Your task to perform on an android device: Open notification settings Image 0: 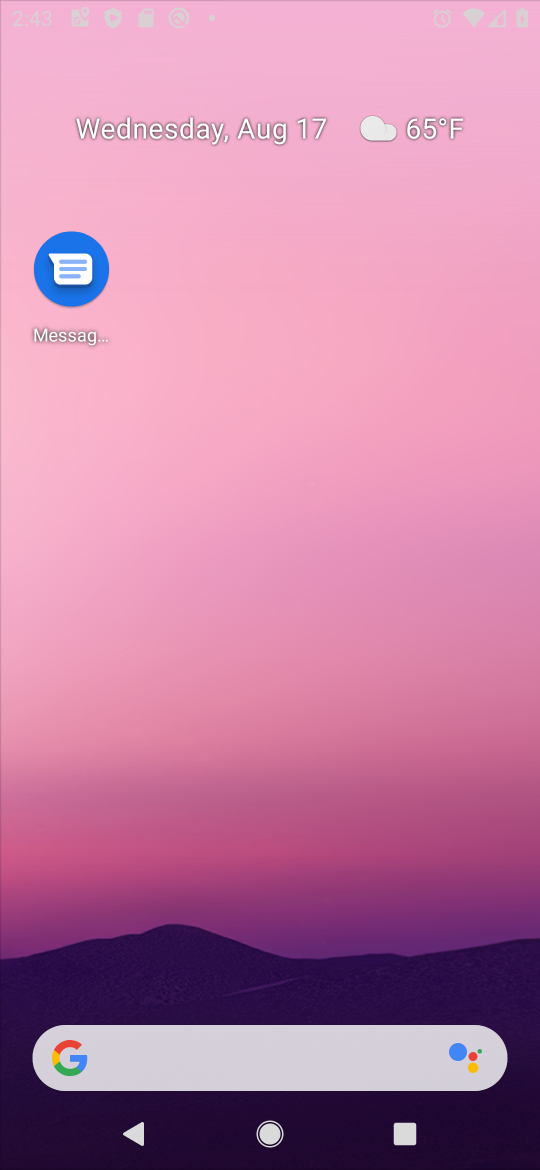
Step 0: press home button
Your task to perform on an android device: Open notification settings Image 1: 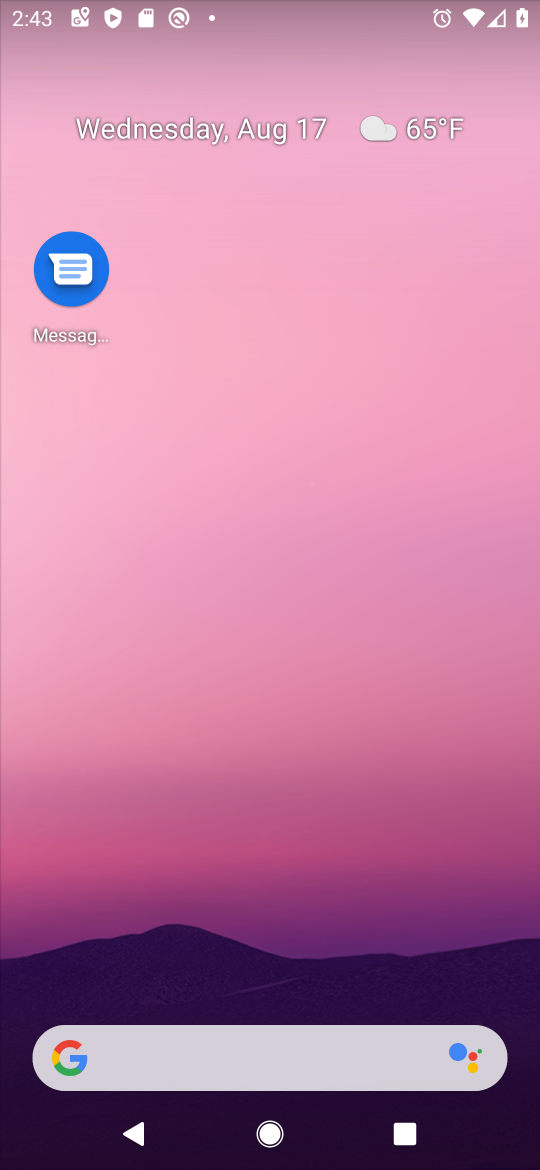
Step 1: drag from (231, 718) to (226, 56)
Your task to perform on an android device: Open notification settings Image 2: 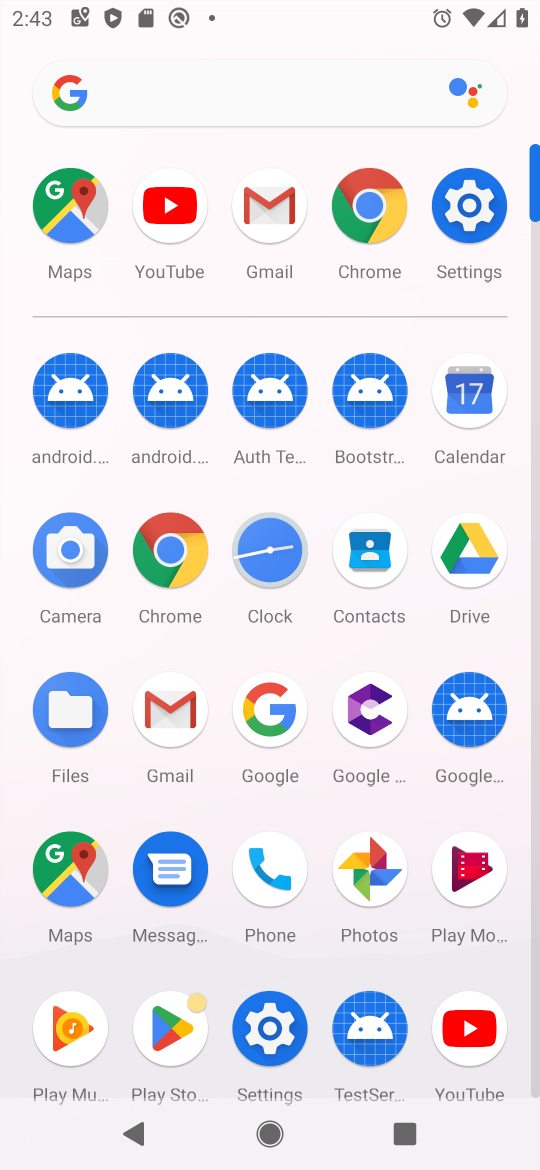
Step 2: click (467, 217)
Your task to perform on an android device: Open notification settings Image 3: 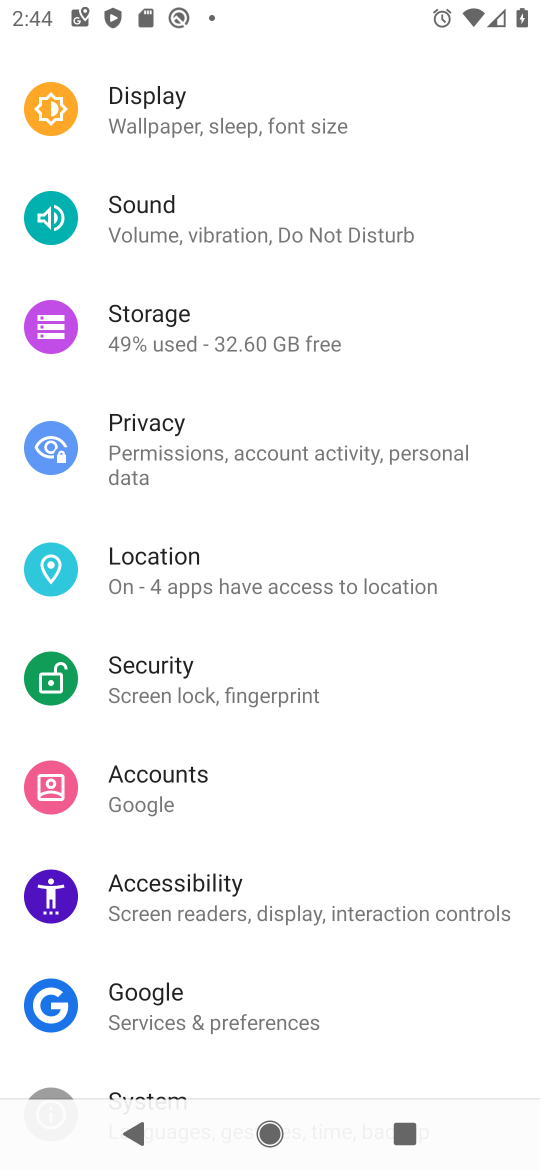
Step 3: drag from (215, 298) to (193, 760)
Your task to perform on an android device: Open notification settings Image 4: 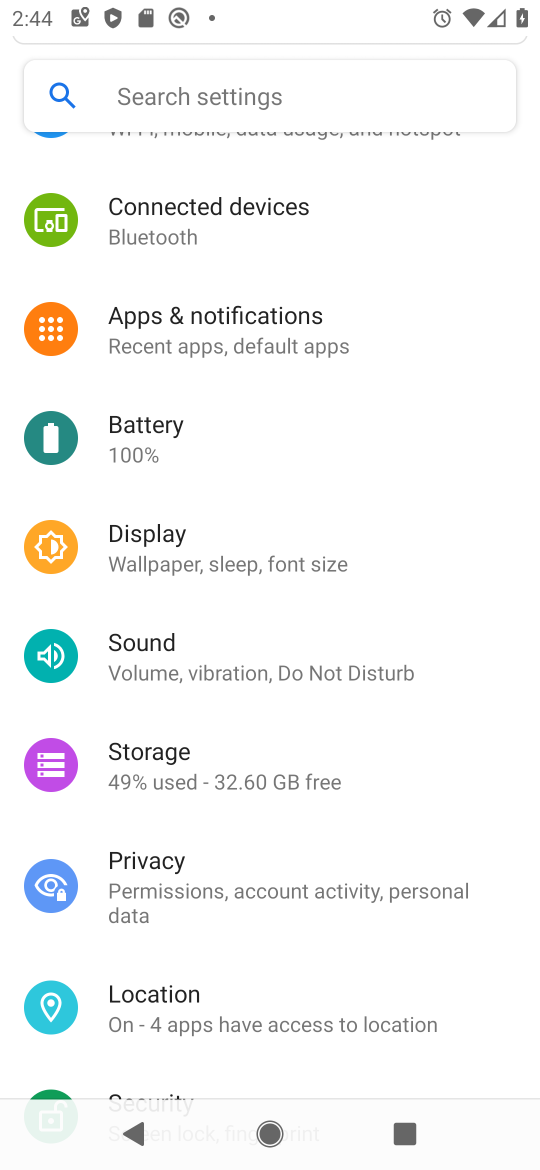
Step 4: click (191, 344)
Your task to perform on an android device: Open notification settings Image 5: 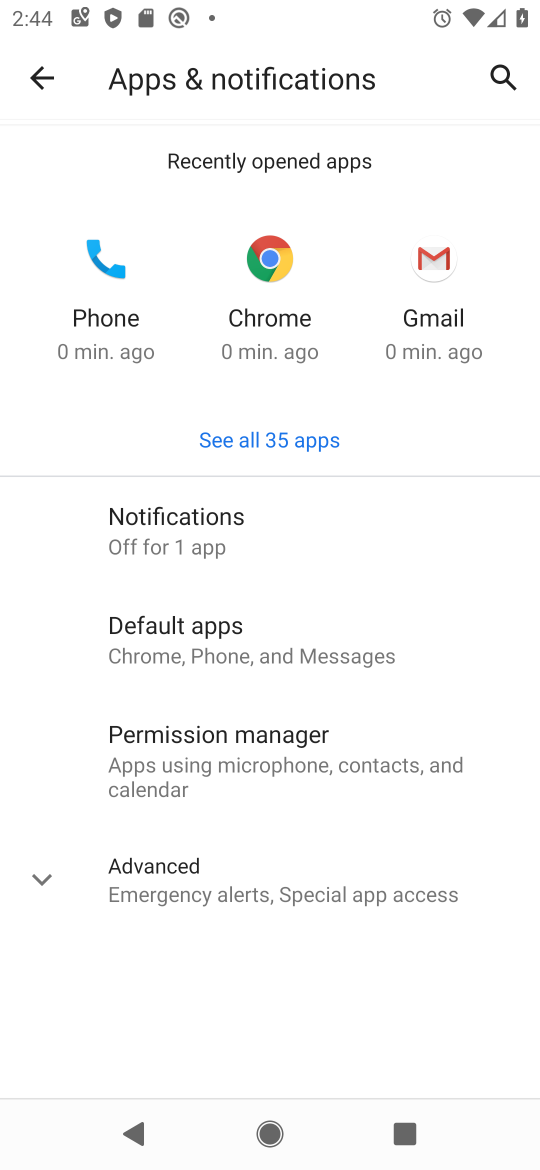
Step 5: click (188, 531)
Your task to perform on an android device: Open notification settings Image 6: 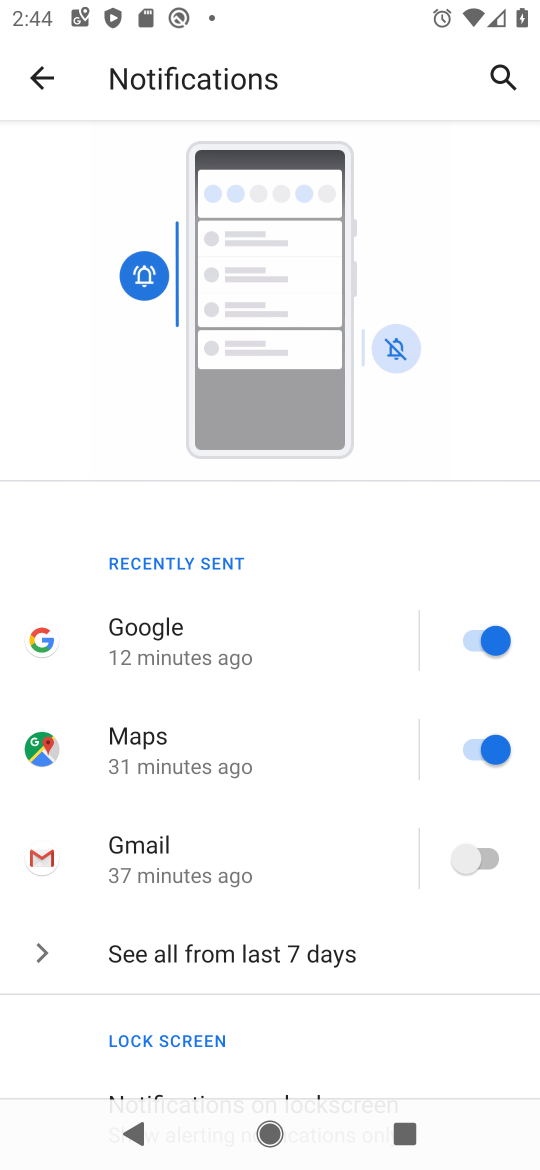
Step 6: drag from (196, 930) to (245, 124)
Your task to perform on an android device: Open notification settings Image 7: 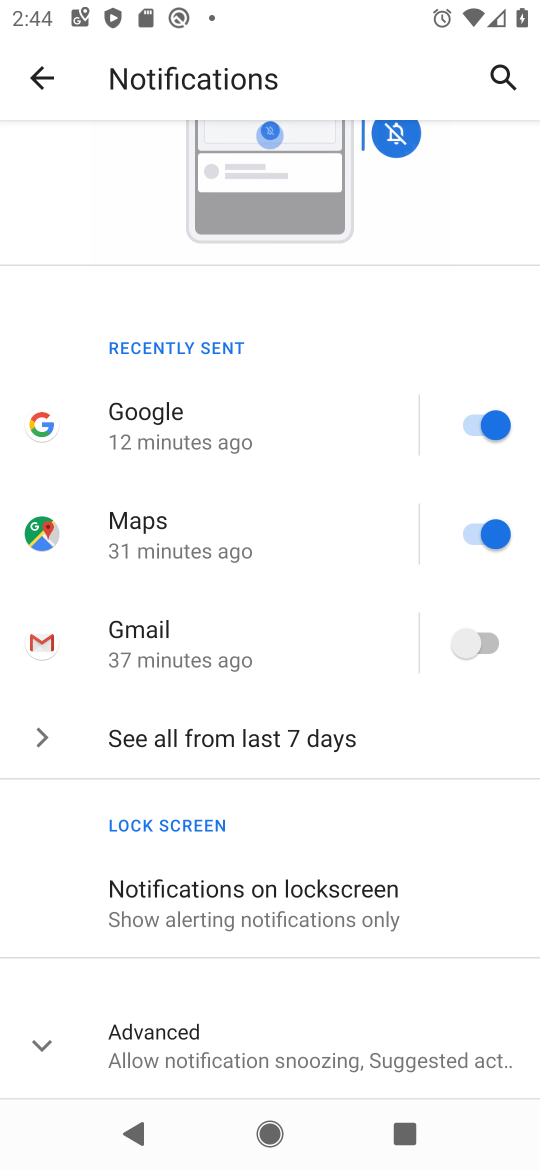
Step 7: click (229, 1056)
Your task to perform on an android device: Open notification settings Image 8: 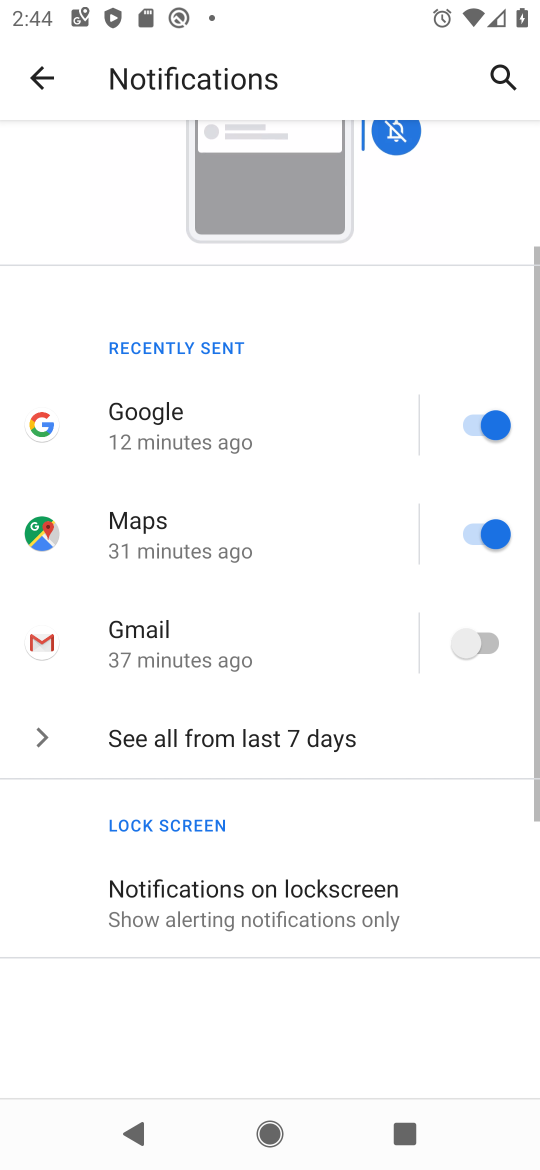
Step 8: task complete